Your task to perform on an android device: toggle wifi Image 0: 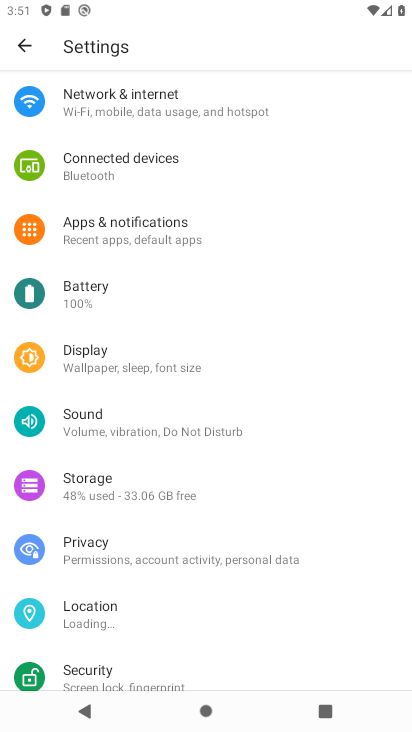
Step 0: click (183, 96)
Your task to perform on an android device: toggle wifi Image 1: 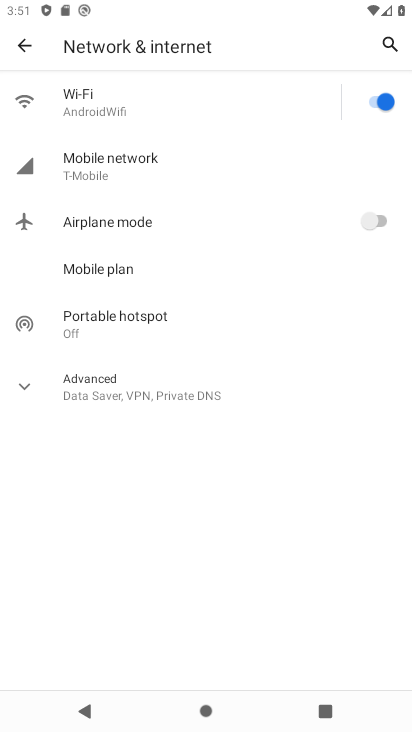
Step 1: click (366, 105)
Your task to perform on an android device: toggle wifi Image 2: 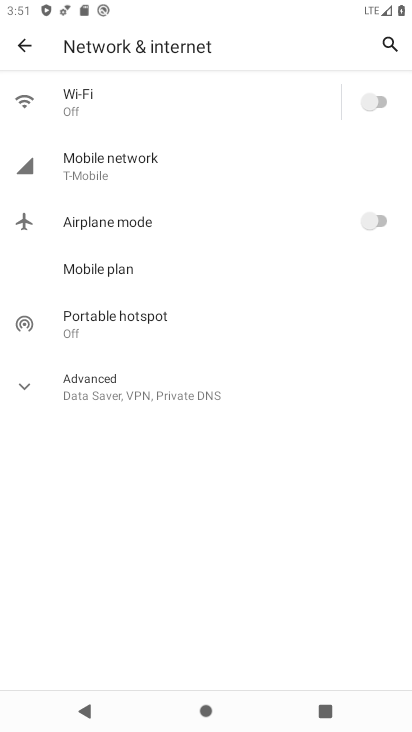
Step 2: task complete